Your task to perform on an android device: add a contact Image 0: 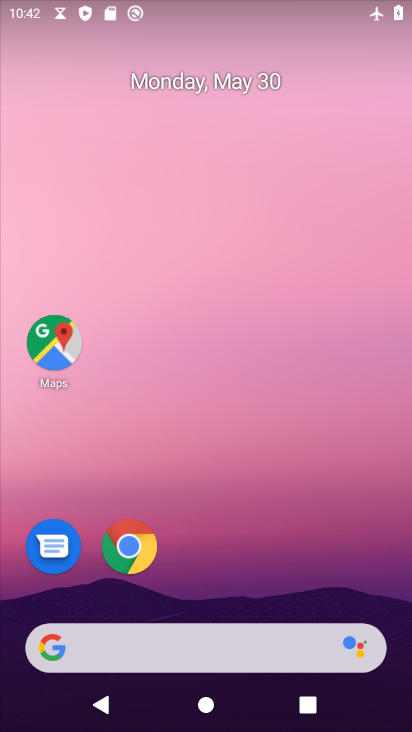
Step 0: drag from (216, 601) to (242, 15)
Your task to perform on an android device: add a contact Image 1: 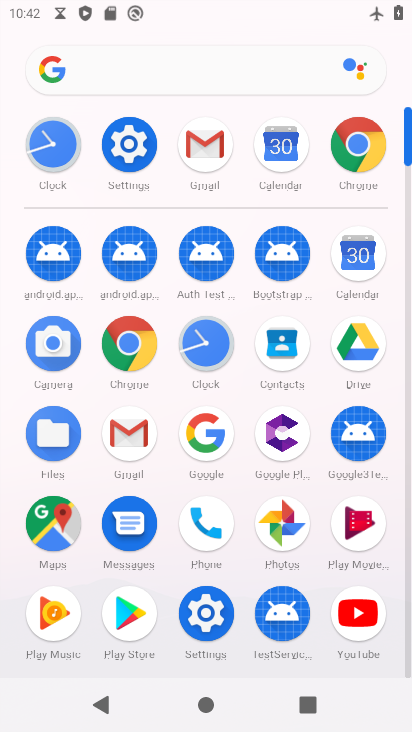
Step 1: click (357, 250)
Your task to perform on an android device: add a contact Image 2: 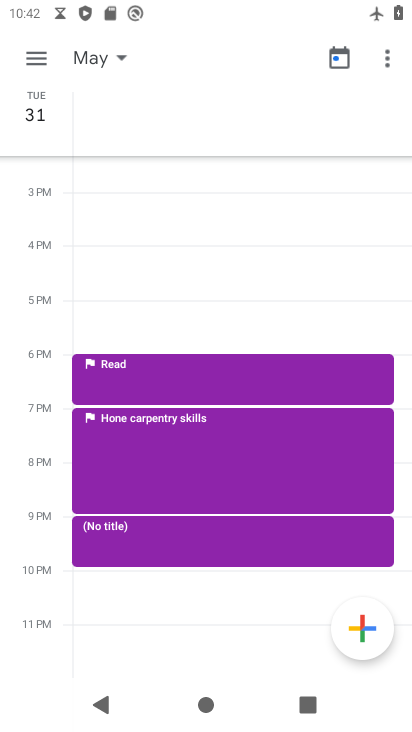
Step 2: press home button
Your task to perform on an android device: add a contact Image 3: 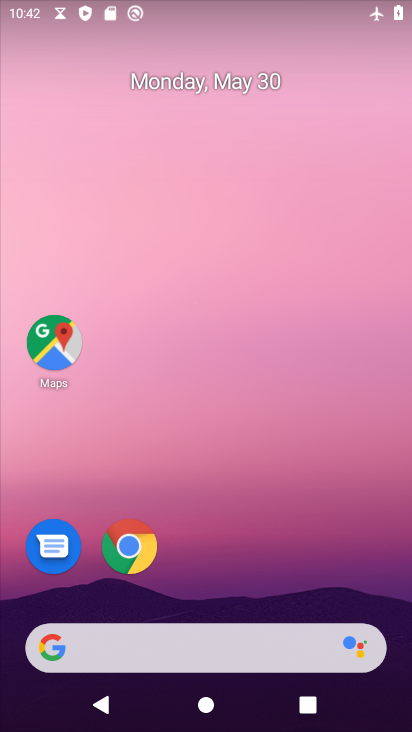
Step 3: drag from (213, 583) to (276, 10)
Your task to perform on an android device: add a contact Image 4: 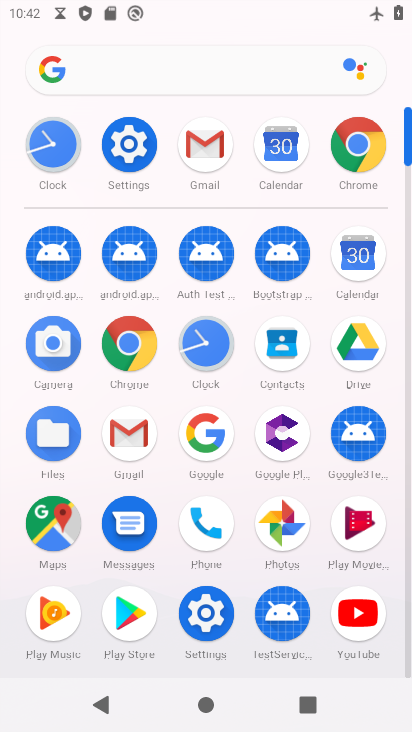
Step 4: click (277, 334)
Your task to perform on an android device: add a contact Image 5: 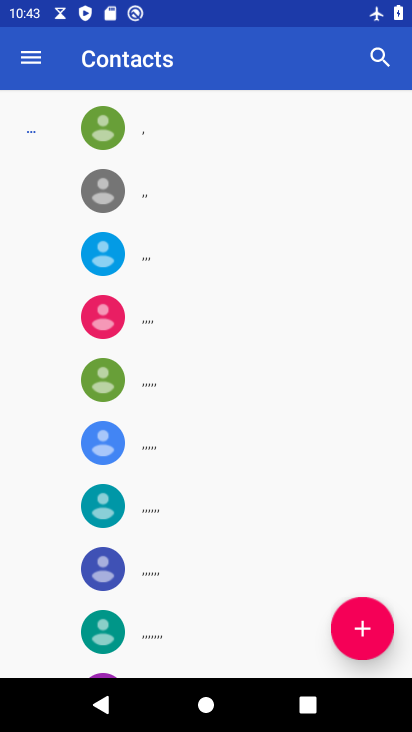
Step 5: click (360, 627)
Your task to perform on an android device: add a contact Image 6: 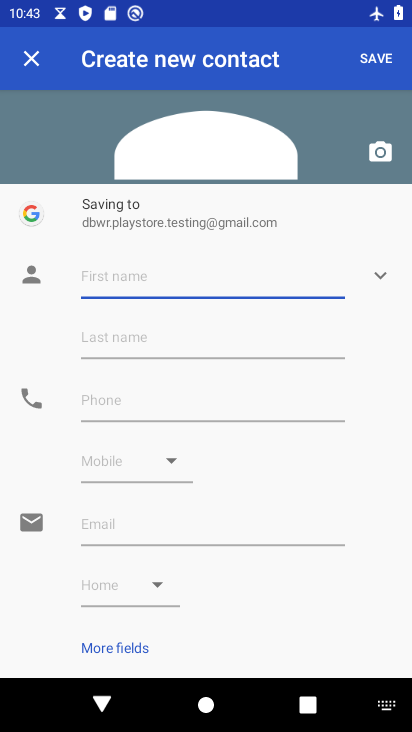
Step 6: type "jyfrryrdsdh"
Your task to perform on an android device: add a contact Image 7: 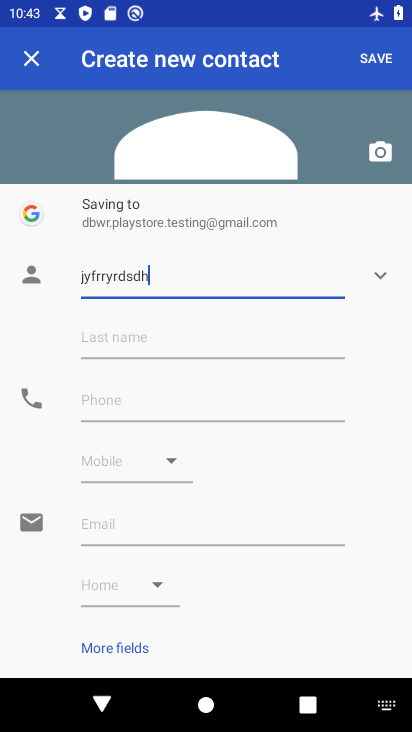
Step 7: click (367, 59)
Your task to perform on an android device: add a contact Image 8: 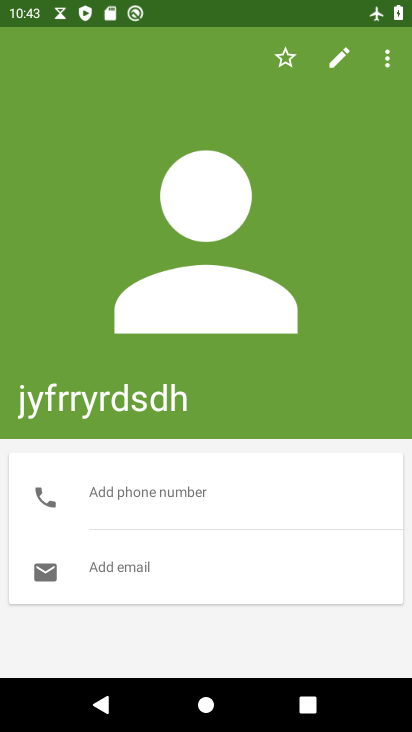
Step 8: task complete